Your task to perform on an android device: Go to display settings Image 0: 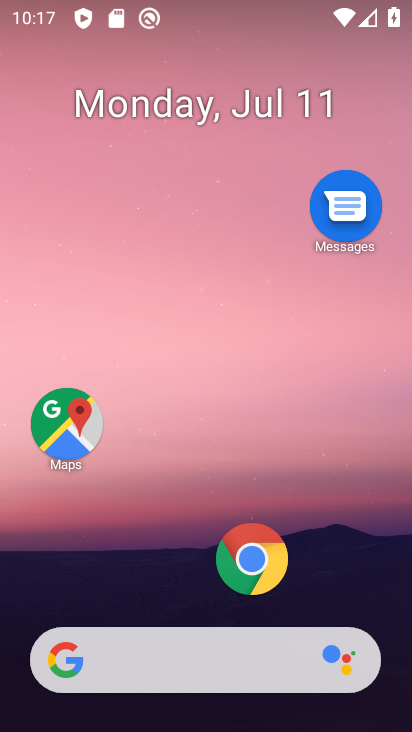
Step 0: drag from (373, 579) to (371, 159)
Your task to perform on an android device: Go to display settings Image 1: 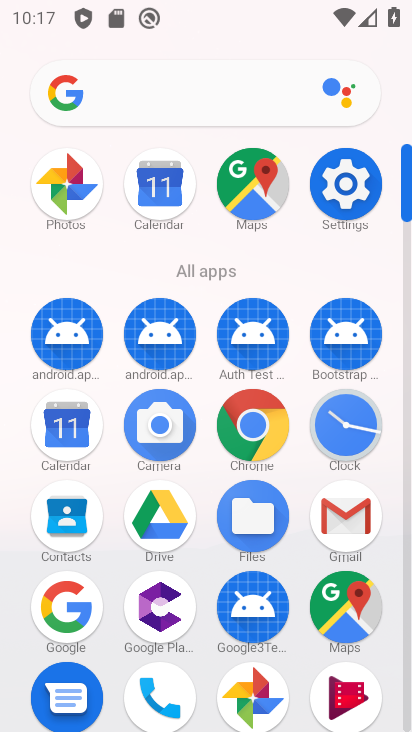
Step 1: click (344, 191)
Your task to perform on an android device: Go to display settings Image 2: 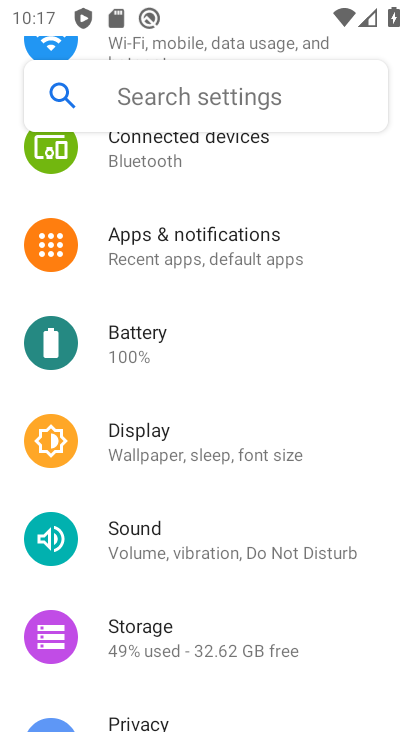
Step 2: click (296, 443)
Your task to perform on an android device: Go to display settings Image 3: 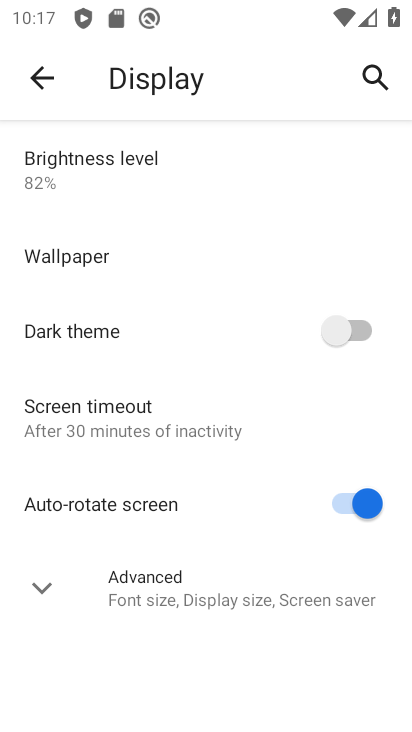
Step 3: click (252, 587)
Your task to perform on an android device: Go to display settings Image 4: 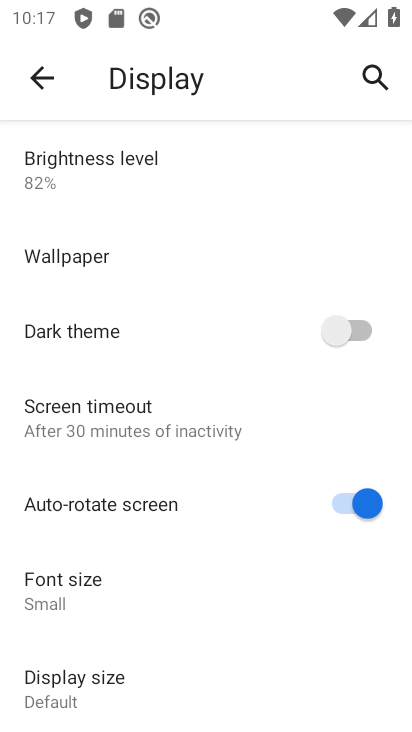
Step 4: task complete